Your task to perform on an android device: add a label to a message in the gmail app Image 0: 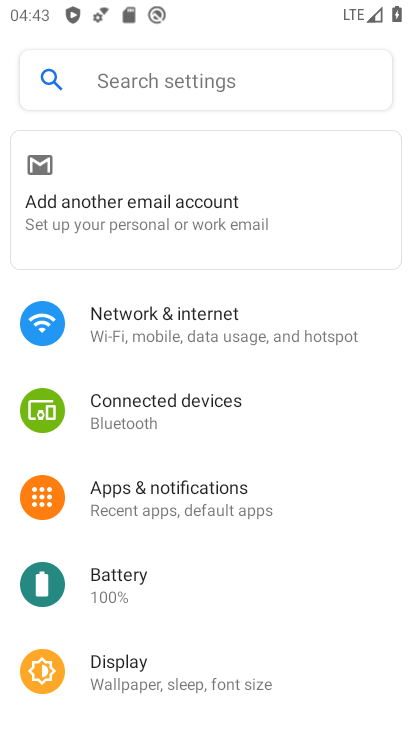
Step 0: press home button
Your task to perform on an android device: add a label to a message in the gmail app Image 1: 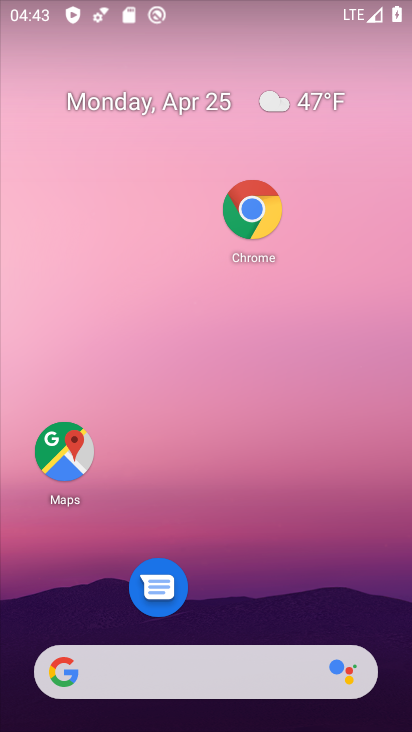
Step 1: drag from (375, 608) to (344, 225)
Your task to perform on an android device: add a label to a message in the gmail app Image 2: 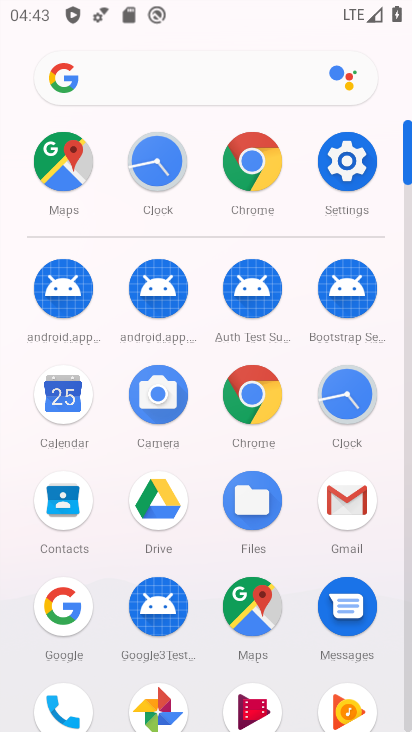
Step 2: click (353, 498)
Your task to perform on an android device: add a label to a message in the gmail app Image 3: 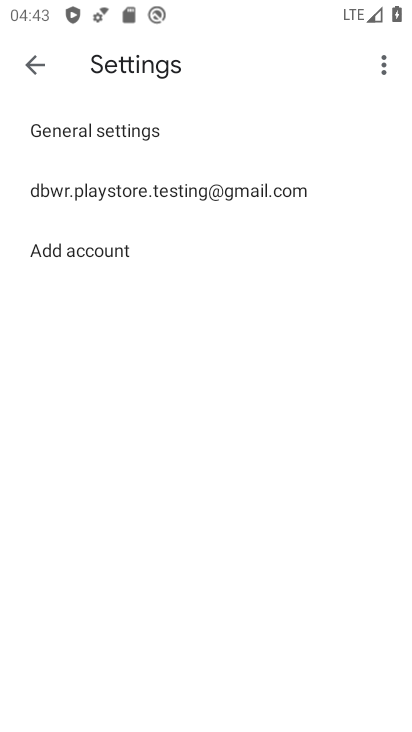
Step 3: click (303, 207)
Your task to perform on an android device: add a label to a message in the gmail app Image 4: 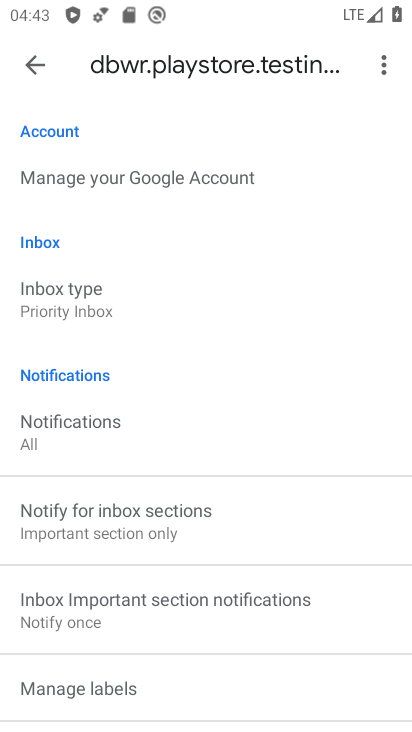
Step 4: press back button
Your task to perform on an android device: add a label to a message in the gmail app Image 5: 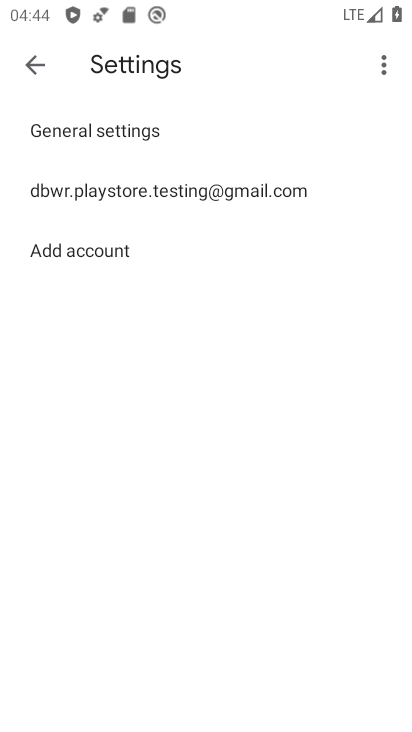
Step 5: press back button
Your task to perform on an android device: add a label to a message in the gmail app Image 6: 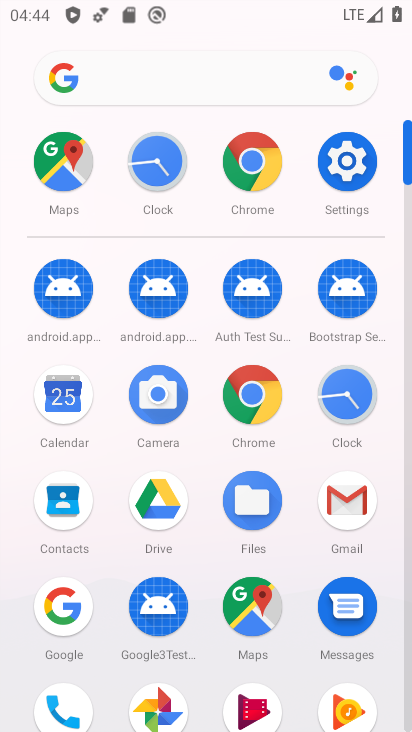
Step 6: click (353, 503)
Your task to perform on an android device: add a label to a message in the gmail app Image 7: 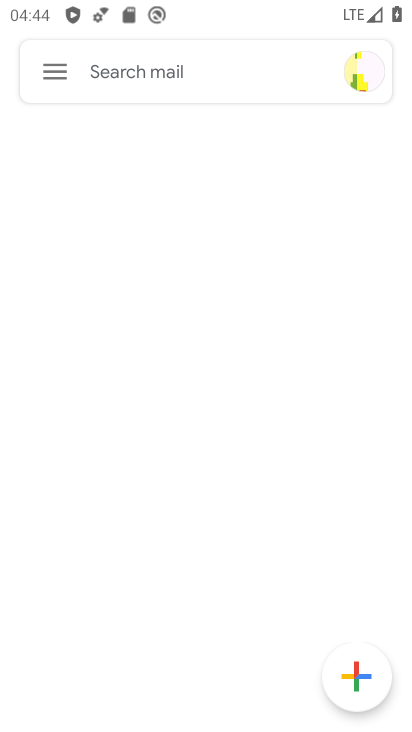
Step 7: task complete